Your task to perform on an android device: Go to display settings Image 0: 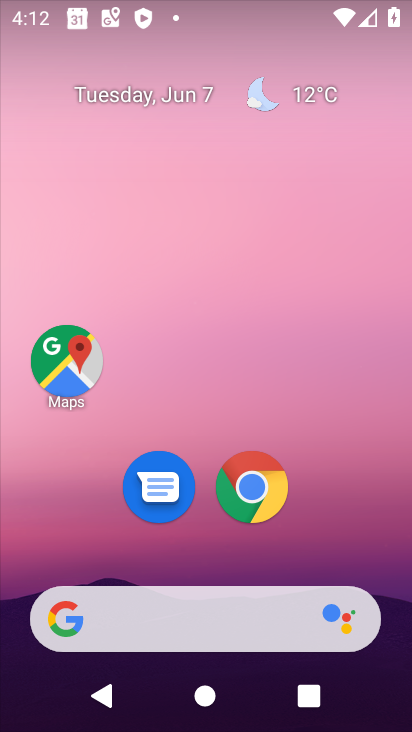
Step 0: drag from (178, 555) to (250, 10)
Your task to perform on an android device: Go to display settings Image 1: 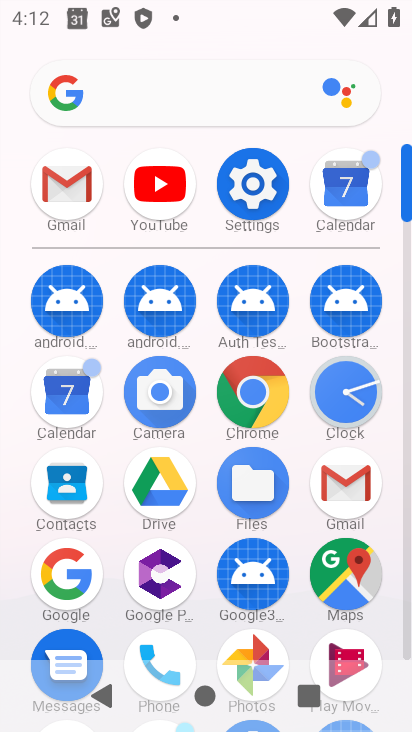
Step 1: click (256, 187)
Your task to perform on an android device: Go to display settings Image 2: 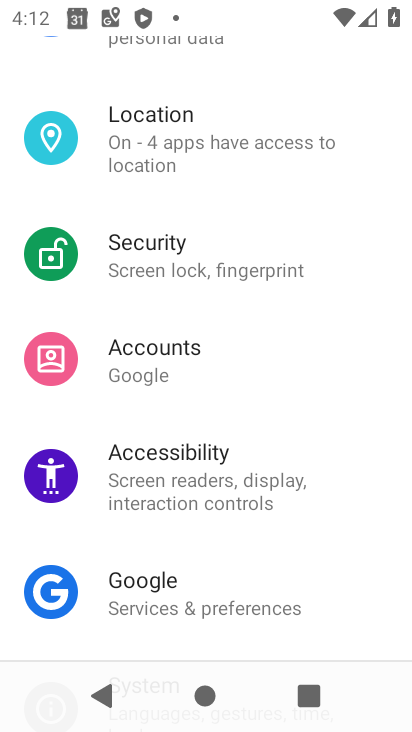
Step 2: drag from (250, 111) to (239, 516)
Your task to perform on an android device: Go to display settings Image 3: 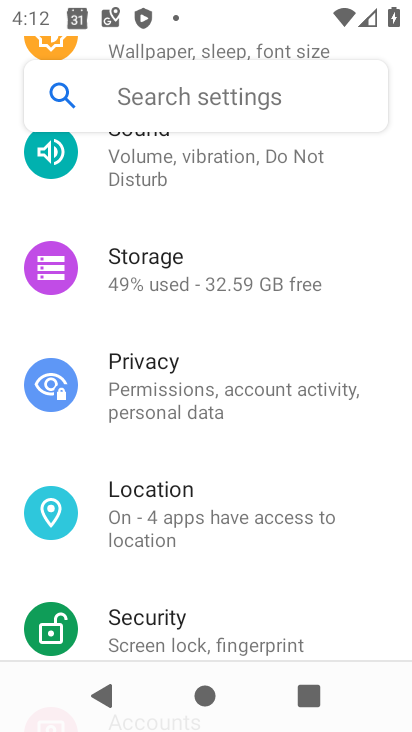
Step 3: drag from (197, 205) to (188, 451)
Your task to perform on an android device: Go to display settings Image 4: 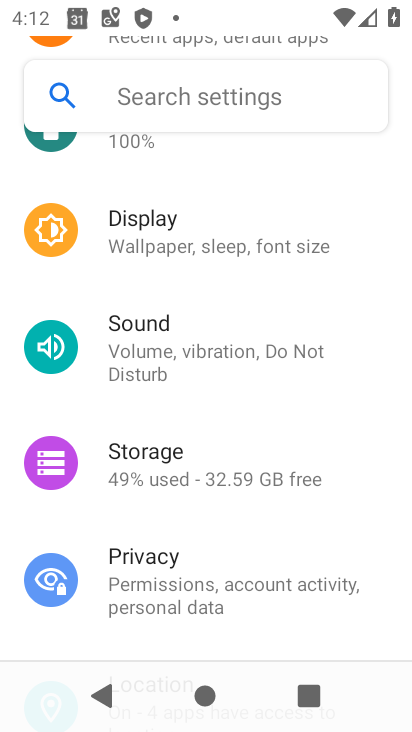
Step 4: click (145, 215)
Your task to perform on an android device: Go to display settings Image 5: 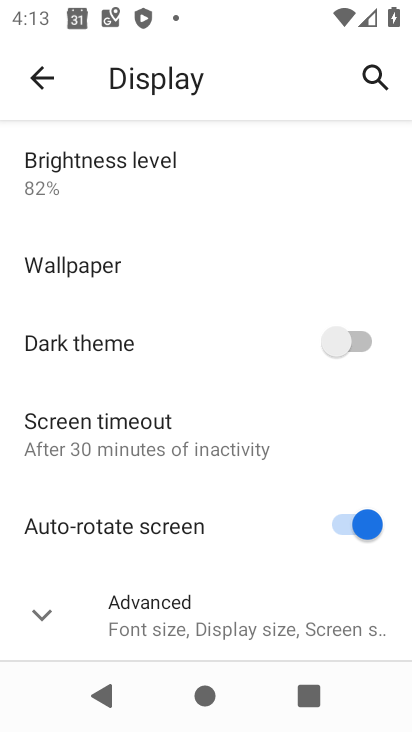
Step 5: task complete